Your task to perform on an android device: toggle sleep mode Image 0: 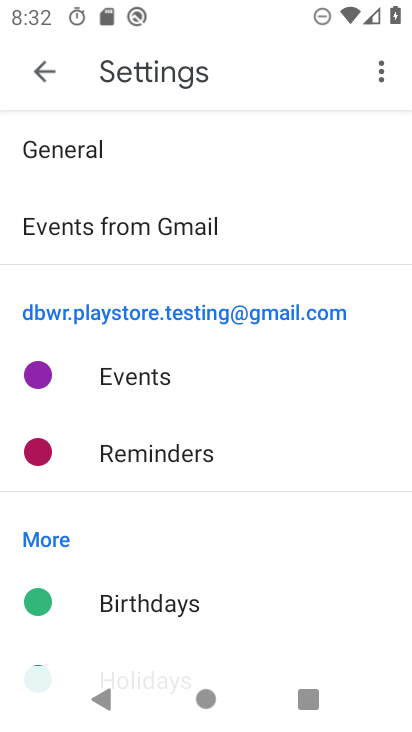
Step 0: press home button
Your task to perform on an android device: toggle sleep mode Image 1: 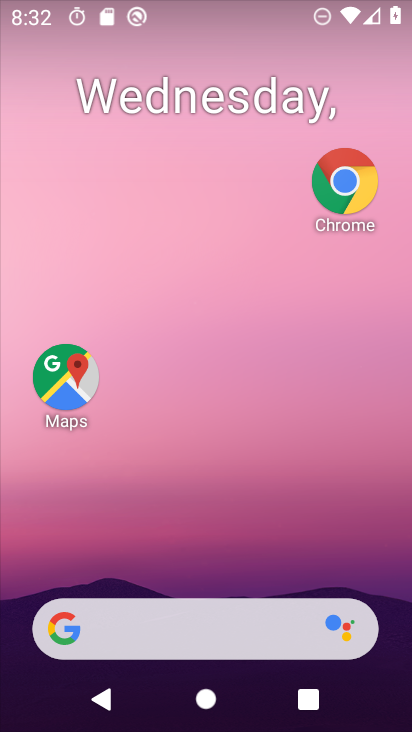
Step 1: drag from (235, 659) to (250, 223)
Your task to perform on an android device: toggle sleep mode Image 2: 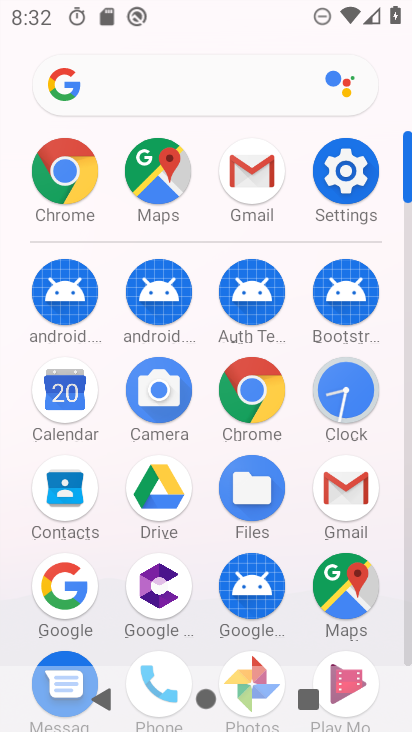
Step 2: click (339, 192)
Your task to perform on an android device: toggle sleep mode Image 3: 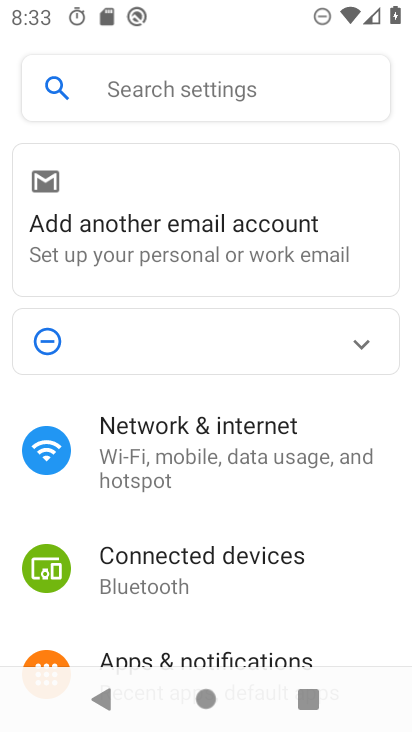
Step 3: click (179, 84)
Your task to perform on an android device: toggle sleep mode Image 4: 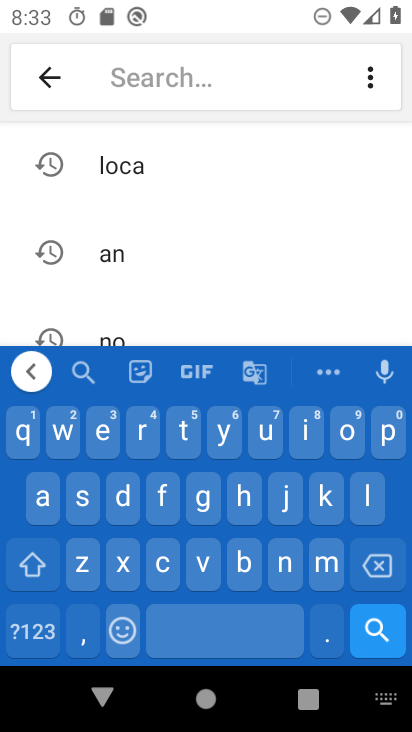
Step 4: click (75, 497)
Your task to perform on an android device: toggle sleep mode Image 5: 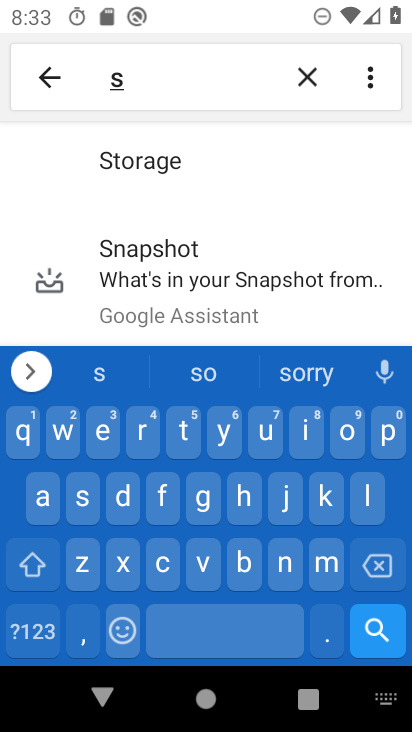
Step 5: click (361, 497)
Your task to perform on an android device: toggle sleep mode Image 6: 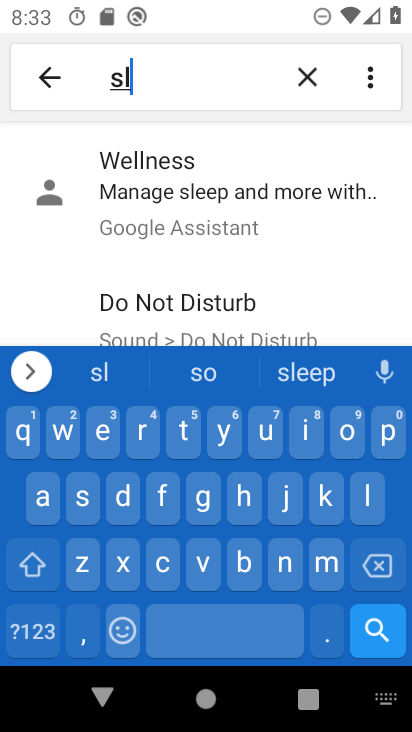
Step 6: click (207, 224)
Your task to perform on an android device: toggle sleep mode Image 7: 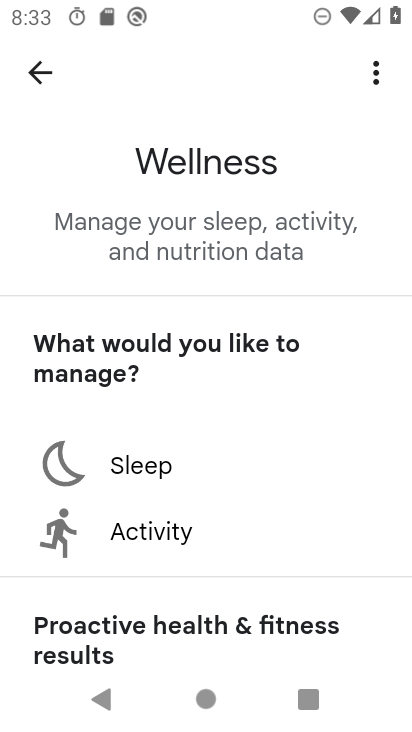
Step 7: click (113, 459)
Your task to perform on an android device: toggle sleep mode Image 8: 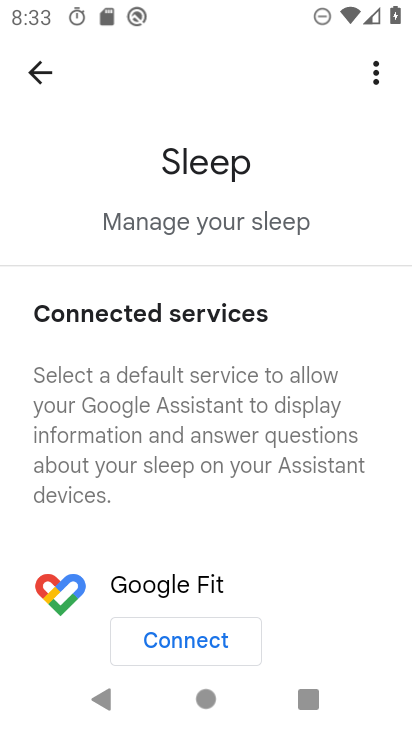
Step 8: task complete